Your task to perform on an android device: toggle data saver in the chrome app Image 0: 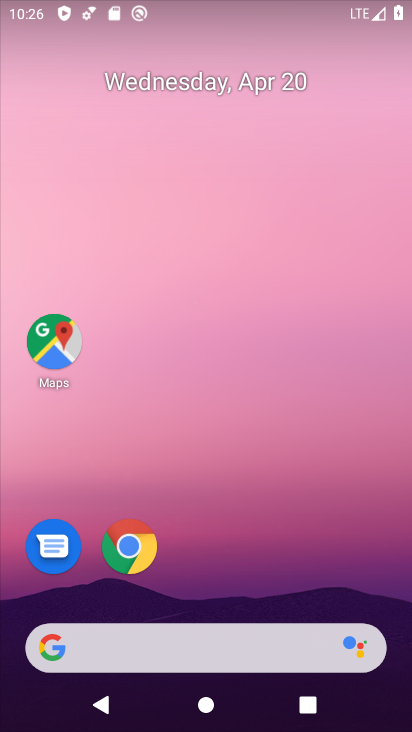
Step 0: click (144, 544)
Your task to perform on an android device: toggle data saver in the chrome app Image 1: 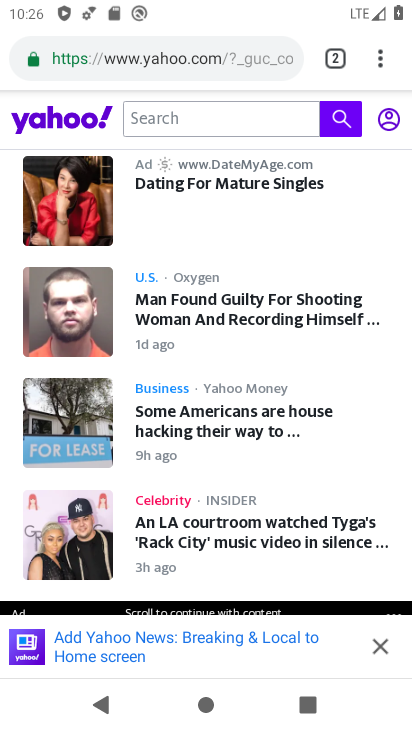
Step 1: drag from (381, 56) to (188, 568)
Your task to perform on an android device: toggle data saver in the chrome app Image 2: 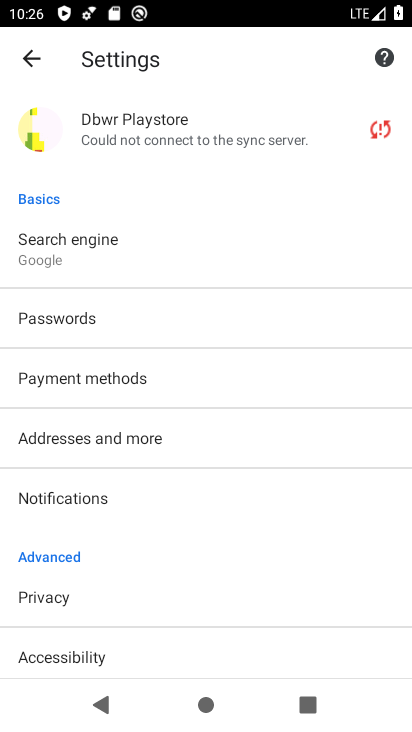
Step 2: drag from (91, 623) to (121, 319)
Your task to perform on an android device: toggle data saver in the chrome app Image 3: 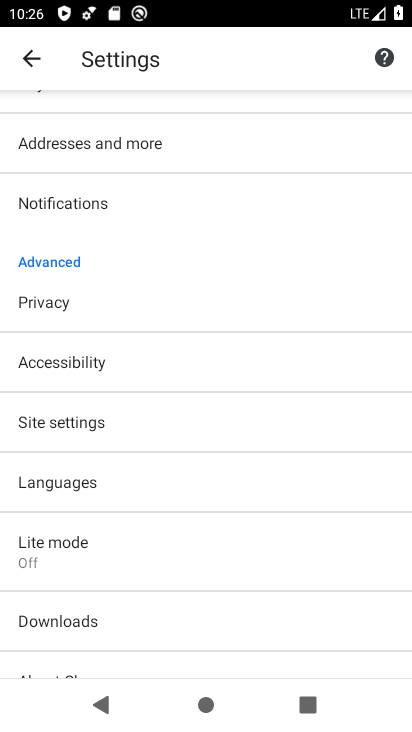
Step 3: click (58, 550)
Your task to perform on an android device: toggle data saver in the chrome app Image 4: 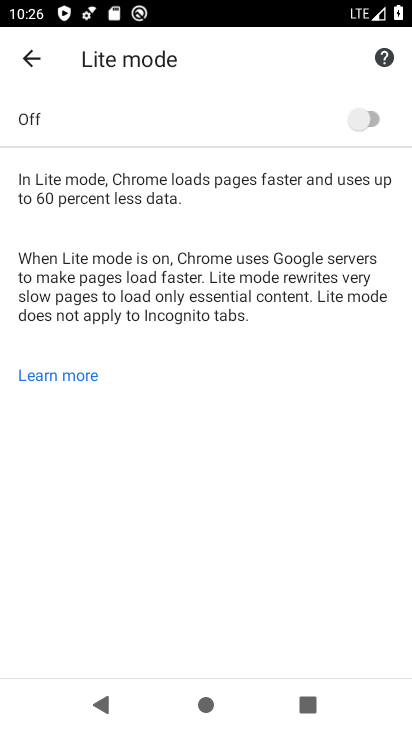
Step 4: click (360, 121)
Your task to perform on an android device: toggle data saver in the chrome app Image 5: 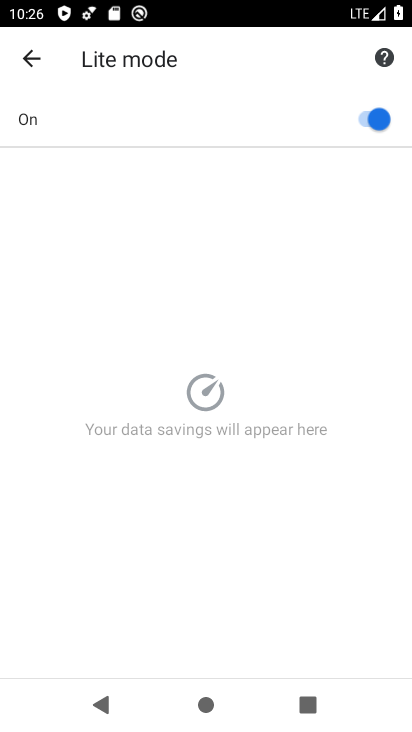
Step 5: task complete